Your task to perform on an android device: Is it going to rain tomorrow? Image 0: 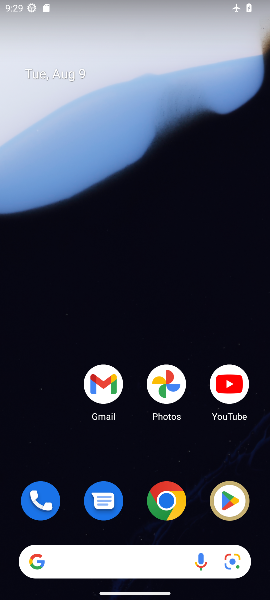
Step 0: click (113, 562)
Your task to perform on an android device: Is it going to rain tomorrow? Image 1: 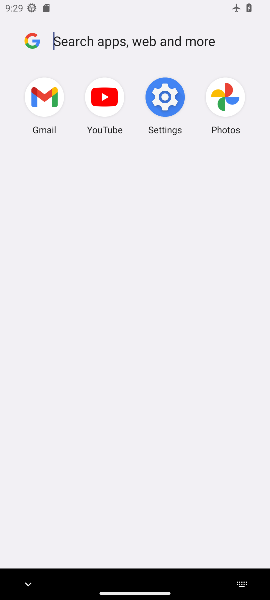
Step 1: type "weather"
Your task to perform on an android device: Is it going to rain tomorrow? Image 2: 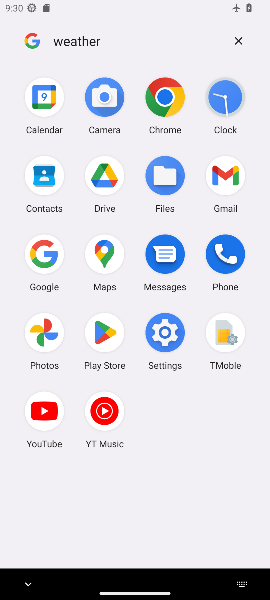
Step 2: click (48, 280)
Your task to perform on an android device: Is it going to rain tomorrow? Image 3: 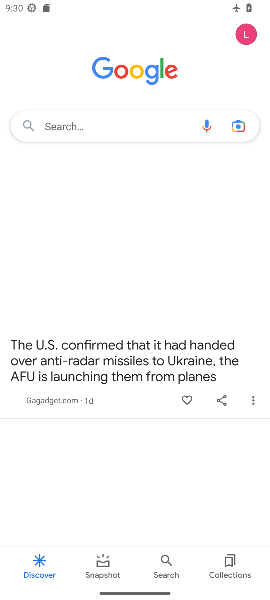
Step 3: click (116, 123)
Your task to perform on an android device: Is it going to rain tomorrow? Image 4: 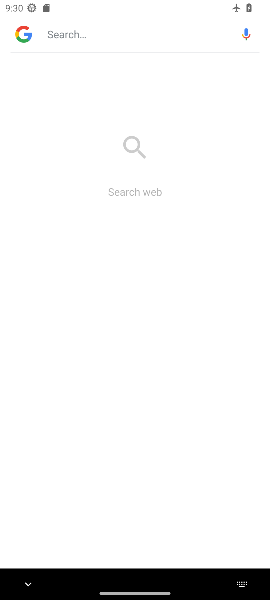
Step 4: click (116, 123)
Your task to perform on an android device: Is it going to rain tomorrow? Image 5: 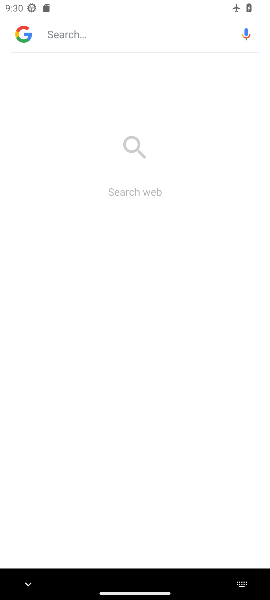
Step 5: type "weather"
Your task to perform on an android device: Is it going to rain tomorrow? Image 6: 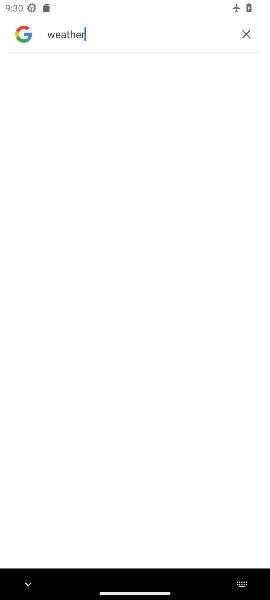
Step 6: task complete